Your task to perform on an android device: Open calendar and show me the second week of next month Image 0: 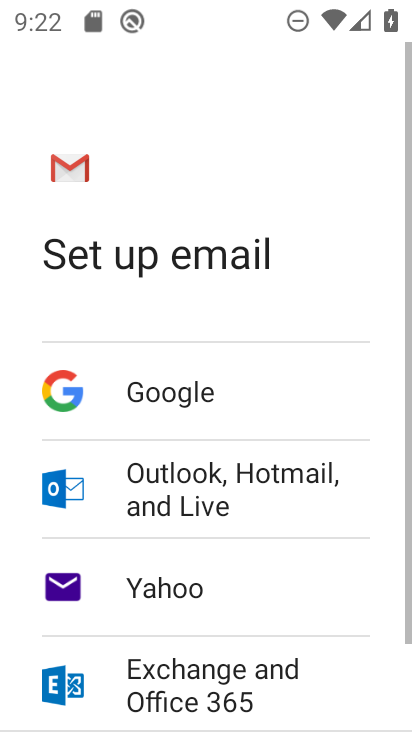
Step 0: press home button
Your task to perform on an android device: Open calendar and show me the second week of next month Image 1: 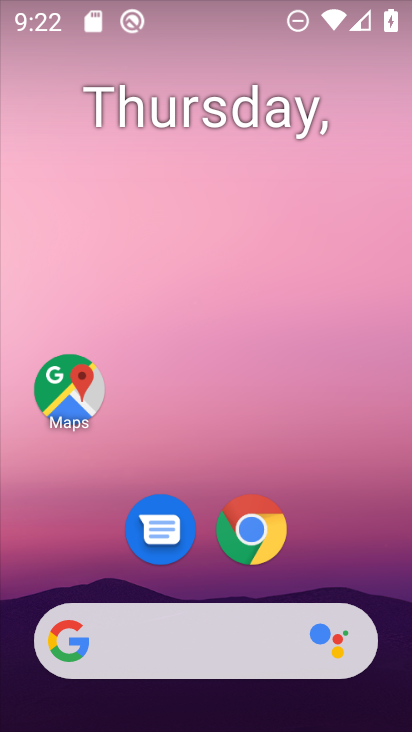
Step 1: drag from (253, 715) to (260, 181)
Your task to perform on an android device: Open calendar and show me the second week of next month Image 2: 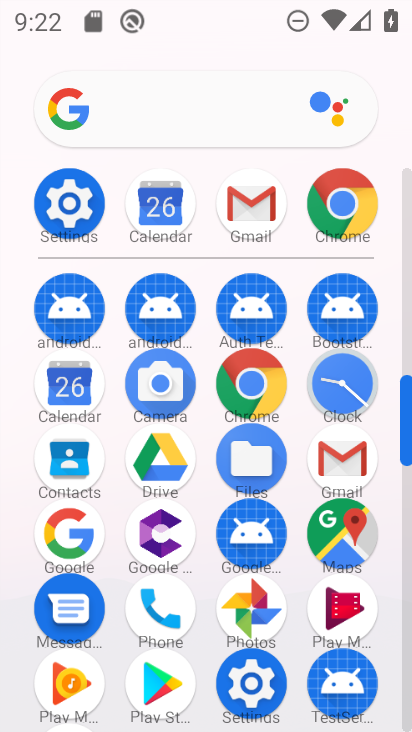
Step 2: click (72, 388)
Your task to perform on an android device: Open calendar and show me the second week of next month Image 3: 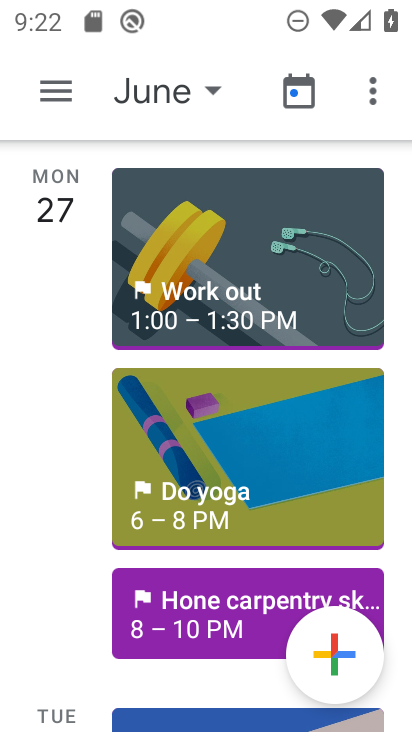
Step 3: click (198, 86)
Your task to perform on an android device: Open calendar and show me the second week of next month Image 4: 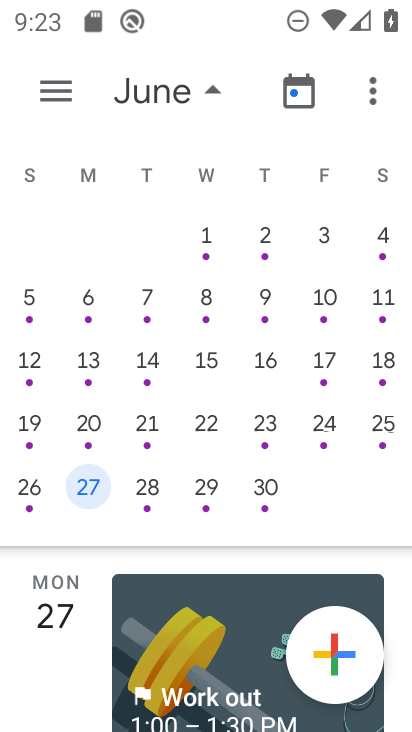
Step 4: click (86, 357)
Your task to perform on an android device: Open calendar and show me the second week of next month Image 5: 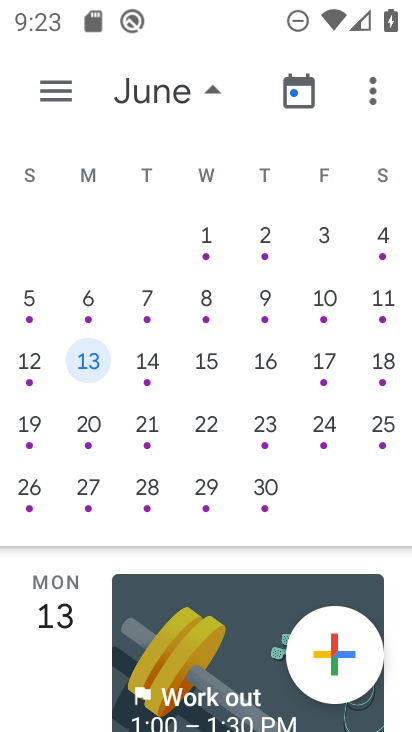
Step 5: click (86, 357)
Your task to perform on an android device: Open calendar and show me the second week of next month Image 6: 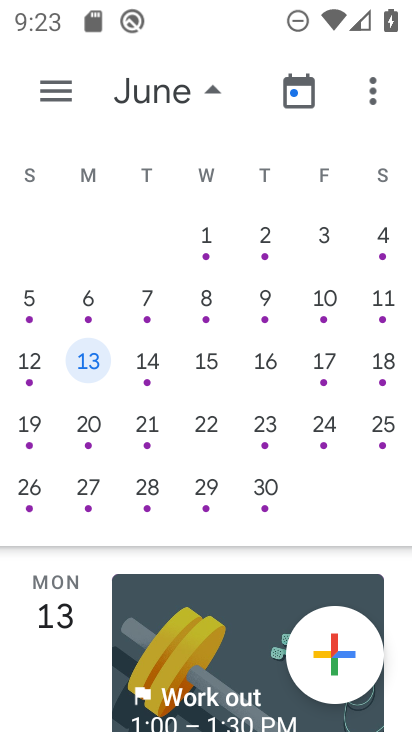
Step 6: click (45, 91)
Your task to perform on an android device: Open calendar and show me the second week of next month Image 7: 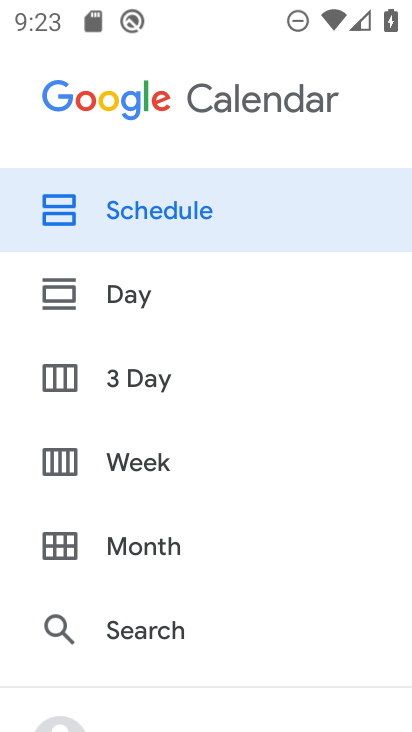
Step 7: click (133, 457)
Your task to perform on an android device: Open calendar and show me the second week of next month Image 8: 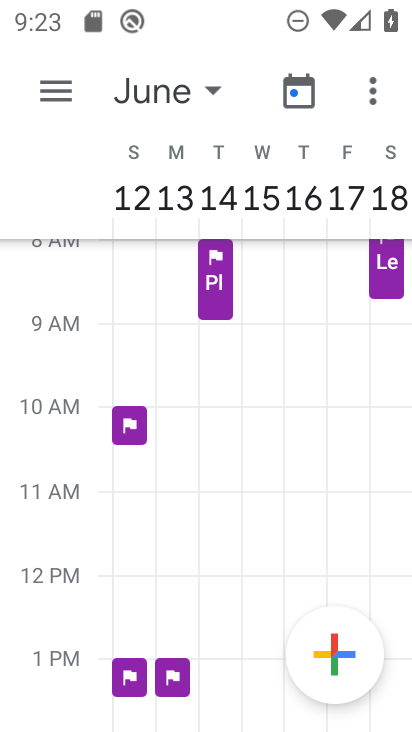
Step 8: task complete